Your task to perform on an android device: Search for vegetarian restaurants on Maps Image 0: 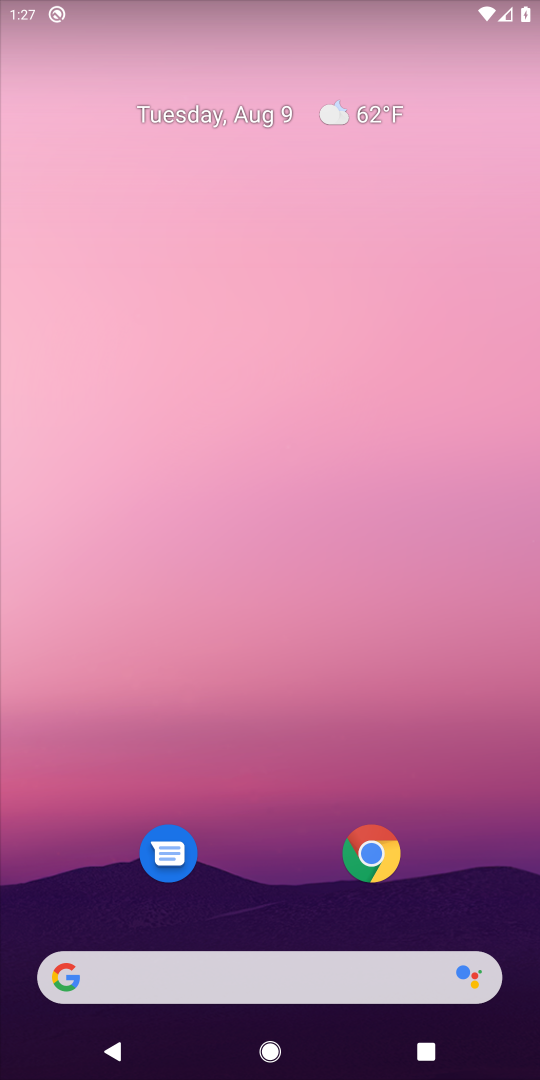
Step 0: press home button
Your task to perform on an android device: Search for vegetarian restaurants on Maps Image 1: 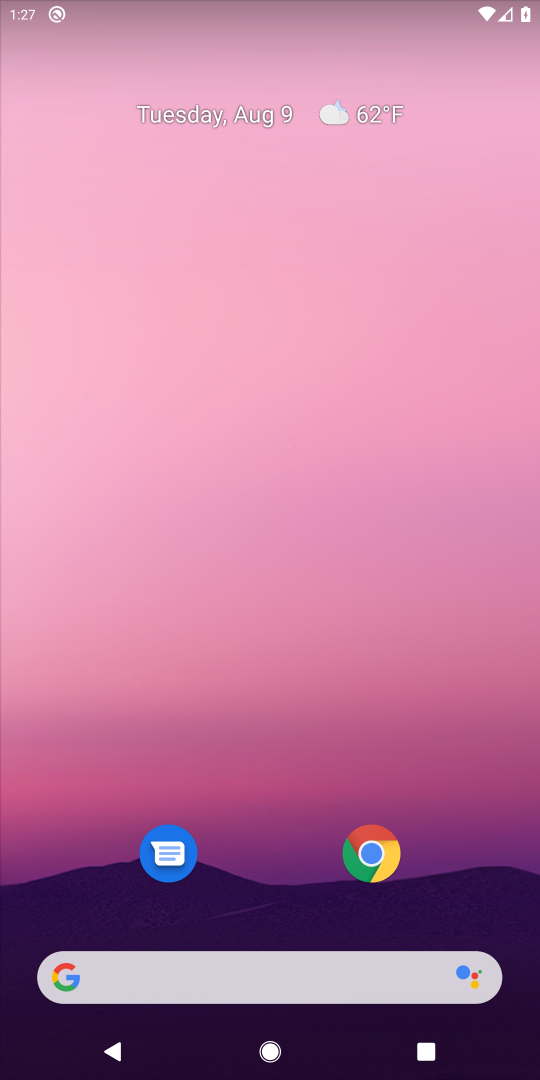
Step 1: drag from (256, 707) to (279, 189)
Your task to perform on an android device: Search for vegetarian restaurants on Maps Image 2: 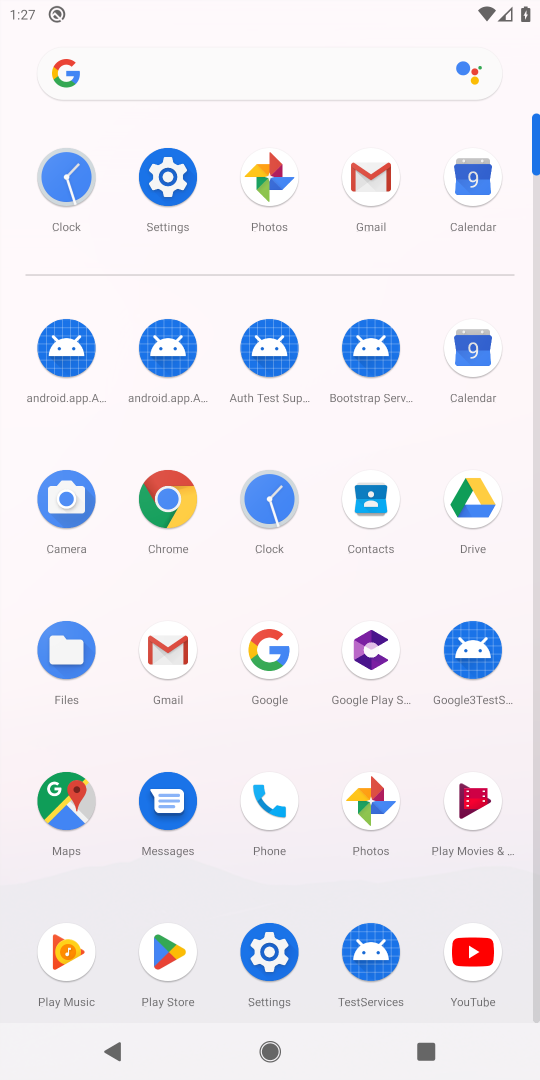
Step 2: click (77, 803)
Your task to perform on an android device: Search for vegetarian restaurants on Maps Image 3: 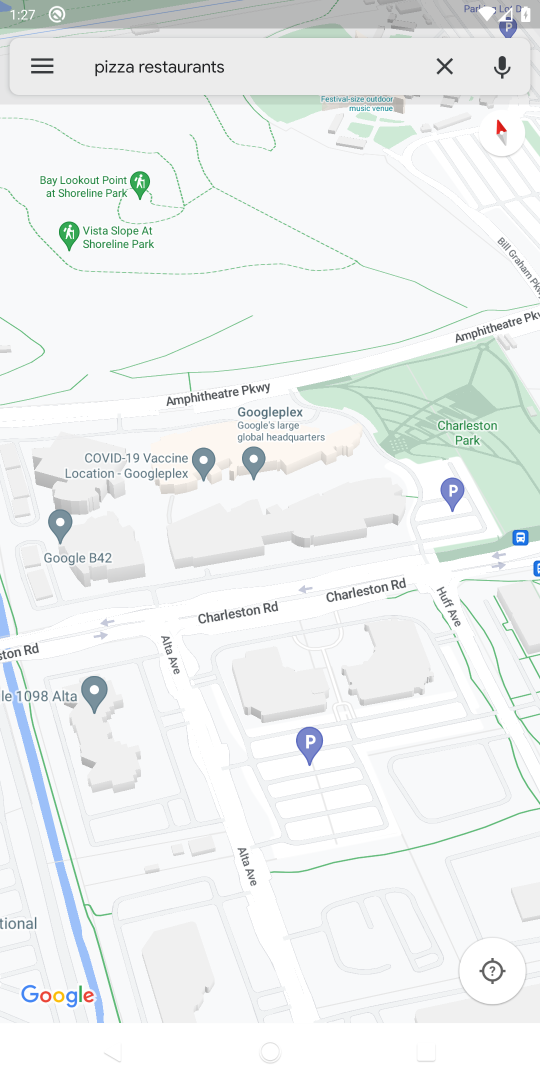
Step 3: click (447, 56)
Your task to perform on an android device: Search for vegetarian restaurants on Maps Image 4: 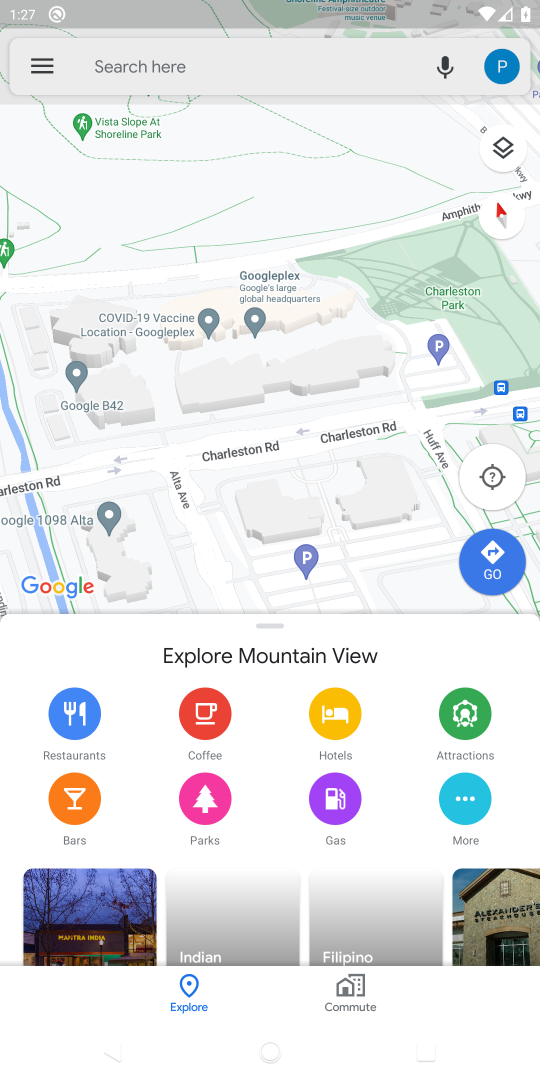
Step 4: type " vegetarian restaurants "
Your task to perform on an android device: Search for vegetarian restaurants on Maps Image 5: 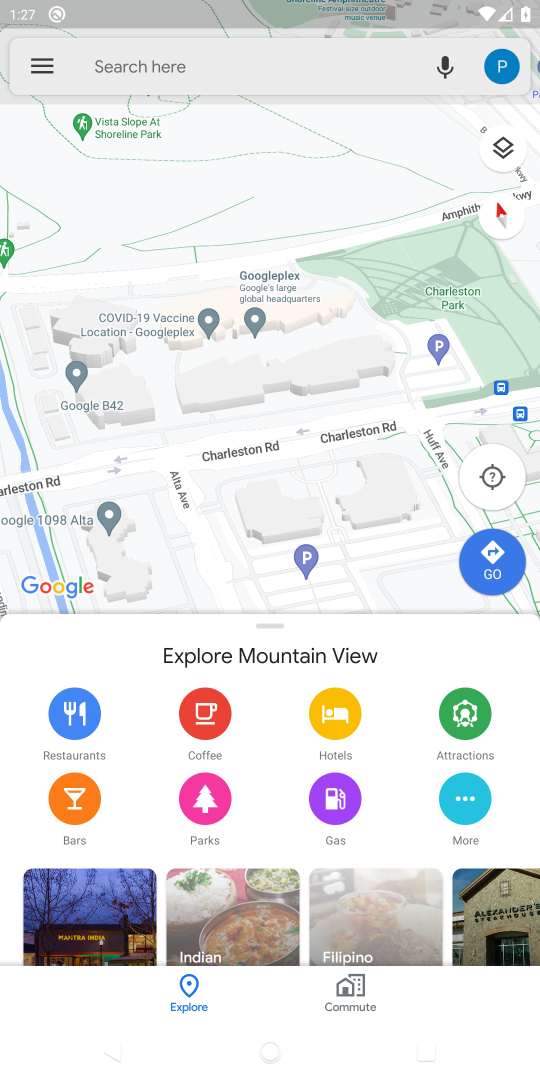
Step 5: click (235, 55)
Your task to perform on an android device: Search for vegetarian restaurants on Maps Image 6: 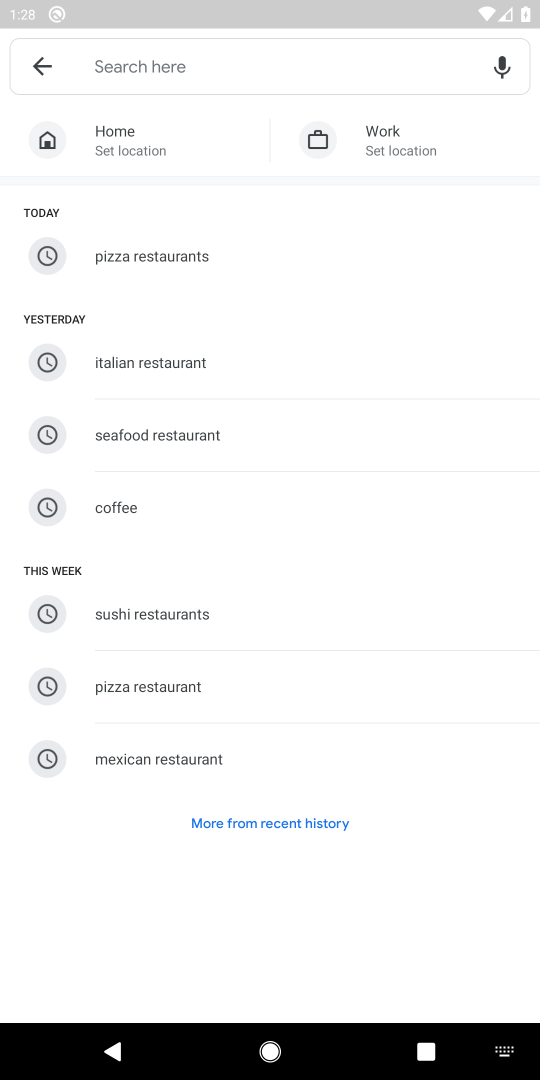
Step 6: type "vegetarian restaurants"
Your task to perform on an android device: Search for vegetarian restaurants on Maps Image 7: 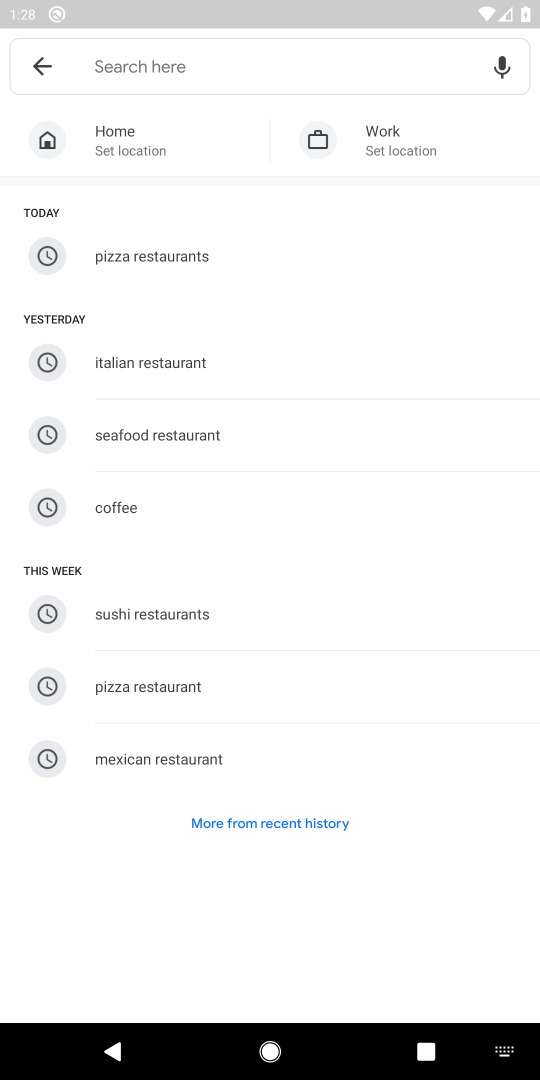
Step 7: click (141, 63)
Your task to perform on an android device: Search for vegetarian restaurants on Maps Image 8: 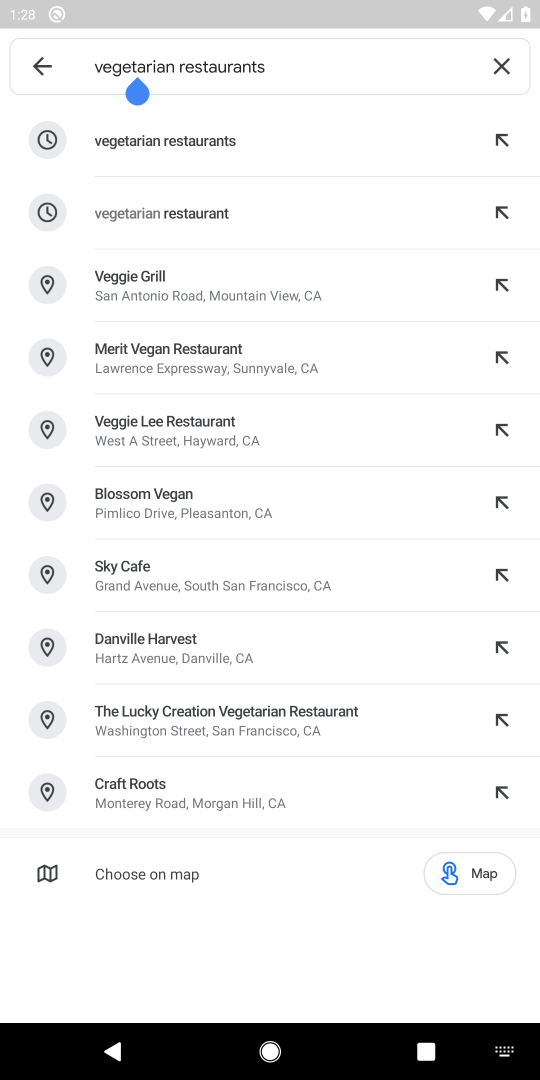
Step 8: press enter
Your task to perform on an android device: Search for vegetarian restaurants on Maps Image 9: 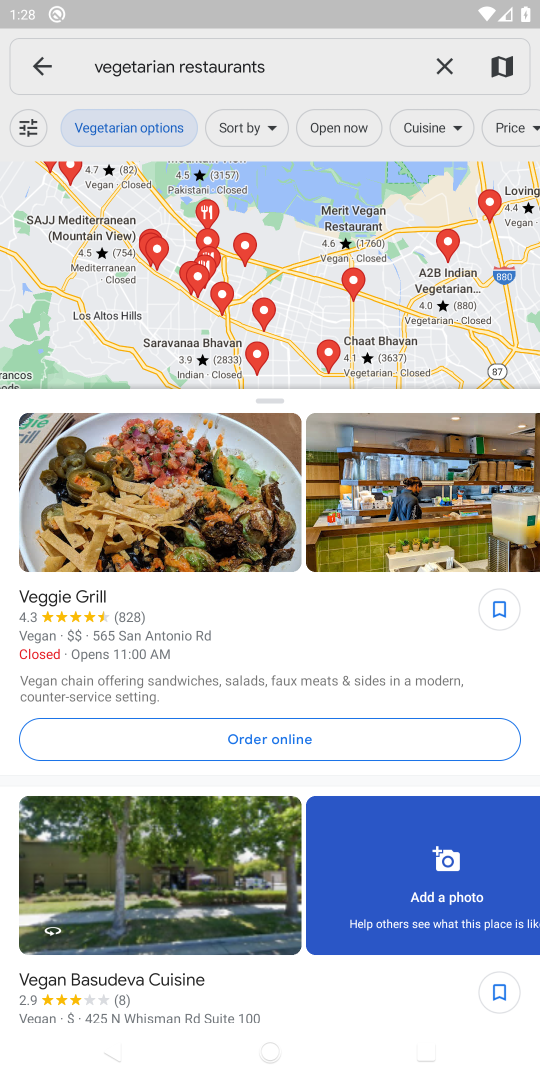
Step 9: task complete